Your task to perform on an android device: turn off picture-in-picture Image 0: 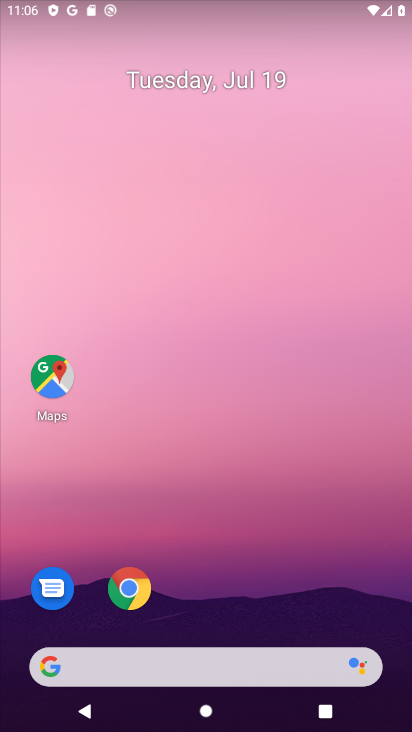
Step 0: drag from (253, 713) to (255, 238)
Your task to perform on an android device: turn off picture-in-picture Image 1: 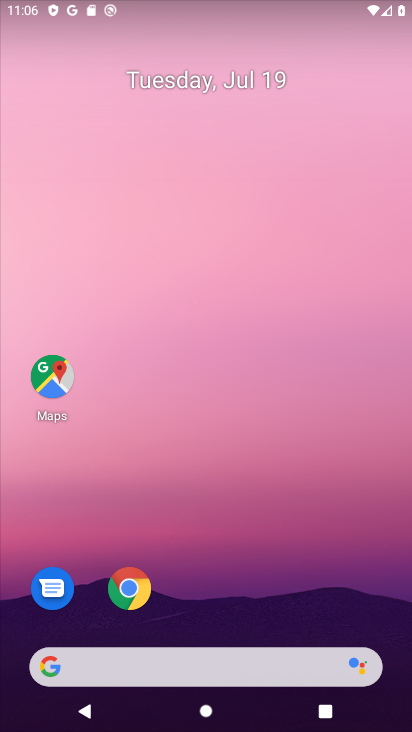
Step 1: drag from (275, 532) to (275, 257)
Your task to perform on an android device: turn off picture-in-picture Image 2: 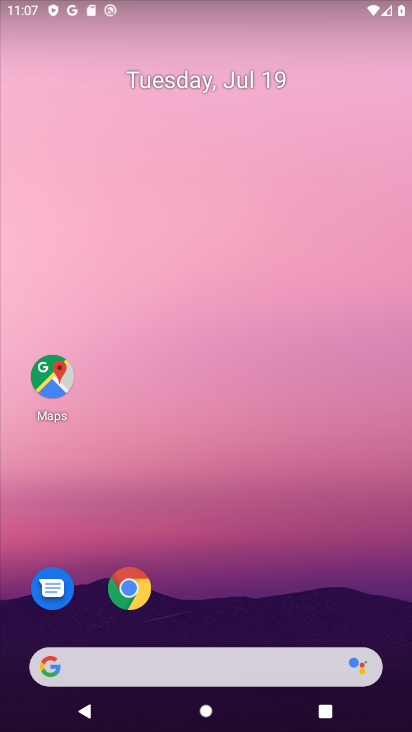
Step 2: drag from (248, 723) to (248, 138)
Your task to perform on an android device: turn off picture-in-picture Image 3: 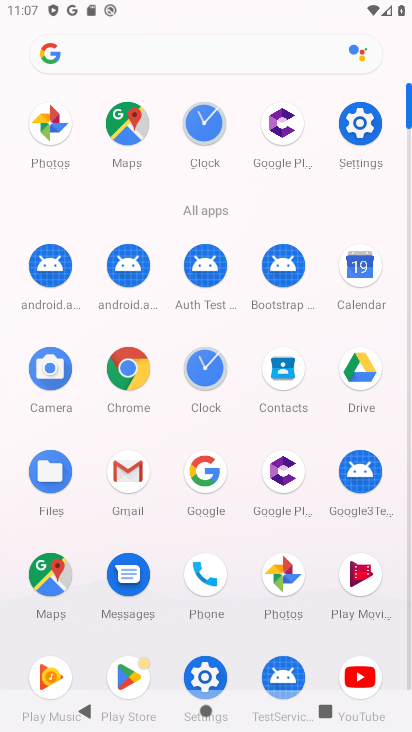
Step 3: click (362, 121)
Your task to perform on an android device: turn off picture-in-picture Image 4: 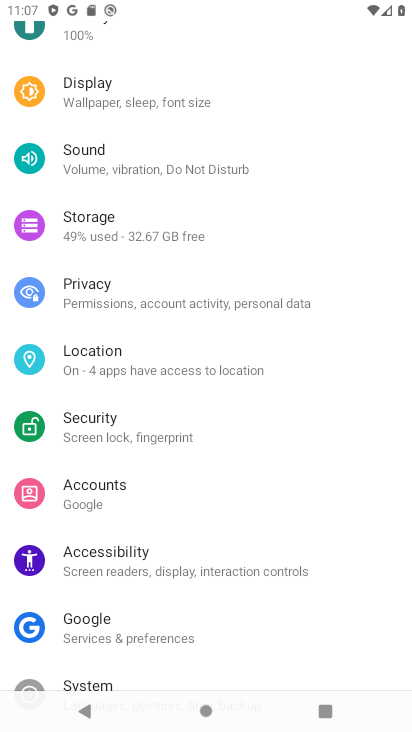
Step 4: drag from (104, 182) to (154, 581)
Your task to perform on an android device: turn off picture-in-picture Image 5: 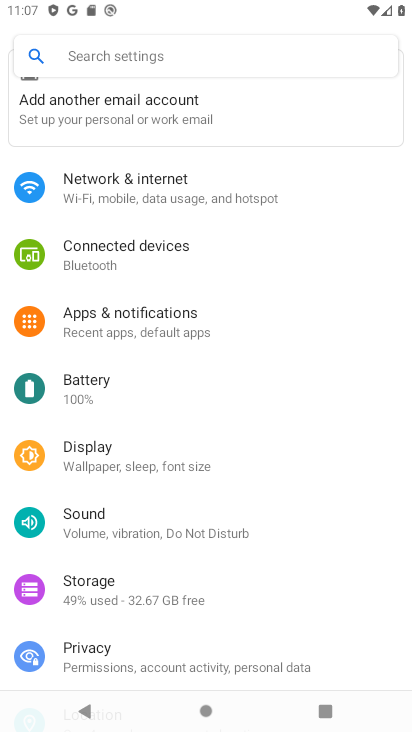
Step 5: click (135, 321)
Your task to perform on an android device: turn off picture-in-picture Image 6: 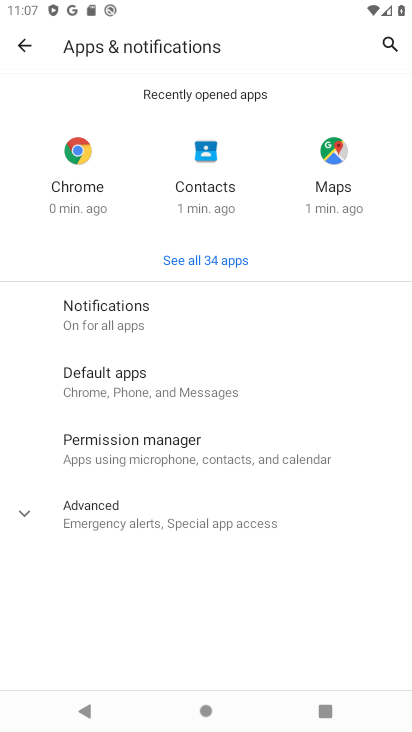
Step 6: click (115, 514)
Your task to perform on an android device: turn off picture-in-picture Image 7: 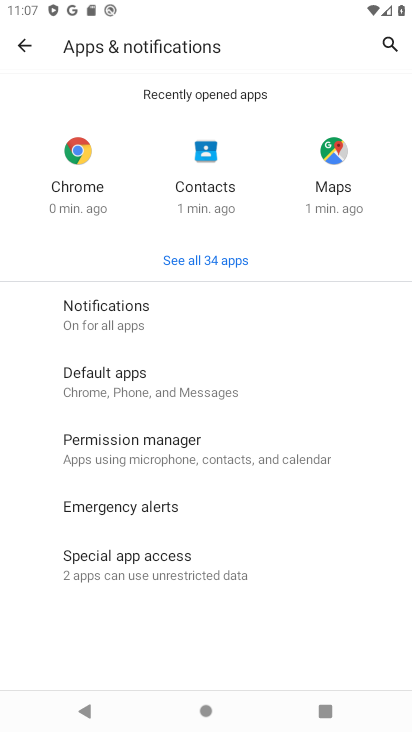
Step 7: click (142, 557)
Your task to perform on an android device: turn off picture-in-picture Image 8: 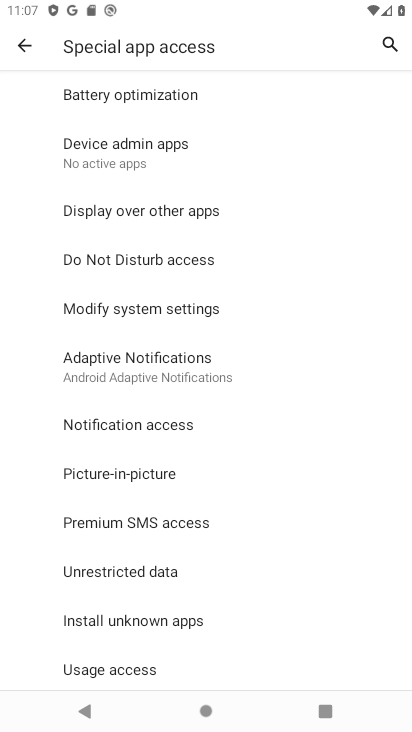
Step 8: click (128, 474)
Your task to perform on an android device: turn off picture-in-picture Image 9: 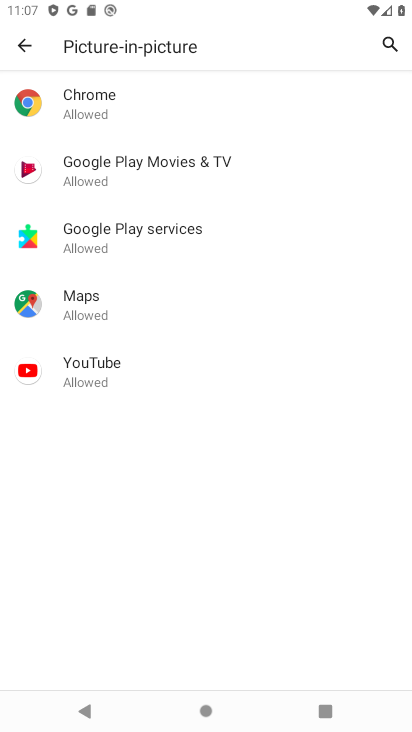
Step 9: click (54, 376)
Your task to perform on an android device: turn off picture-in-picture Image 10: 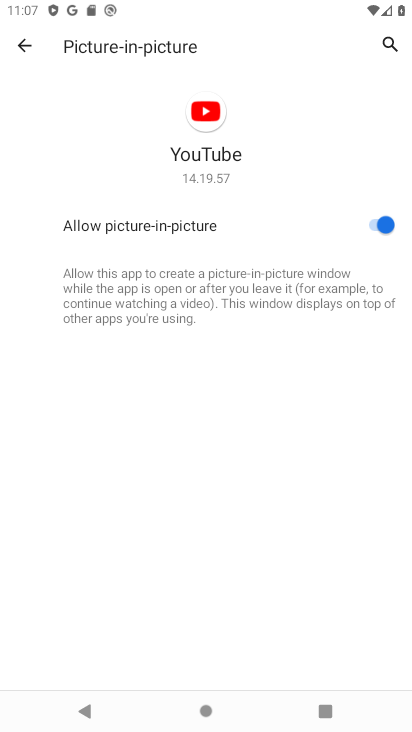
Step 10: click (376, 229)
Your task to perform on an android device: turn off picture-in-picture Image 11: 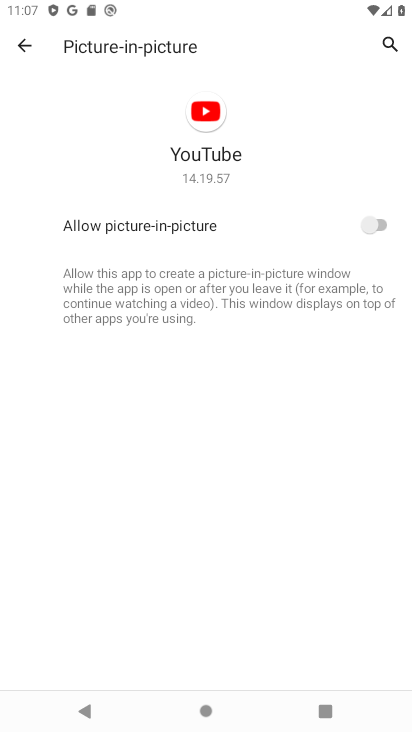
Step 11: task complete